Your task to perform on an android device: Go to internet settings Image 0: 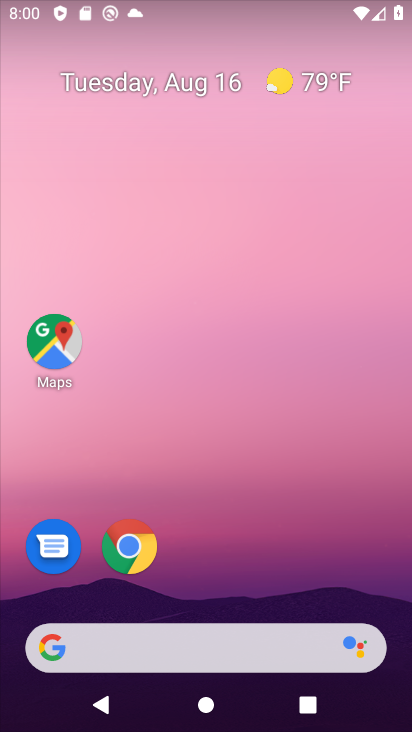
Step 0: drag from (201, 397) to (203, 146)
Your task to perform on an android device: Go to internet settings Image 1: 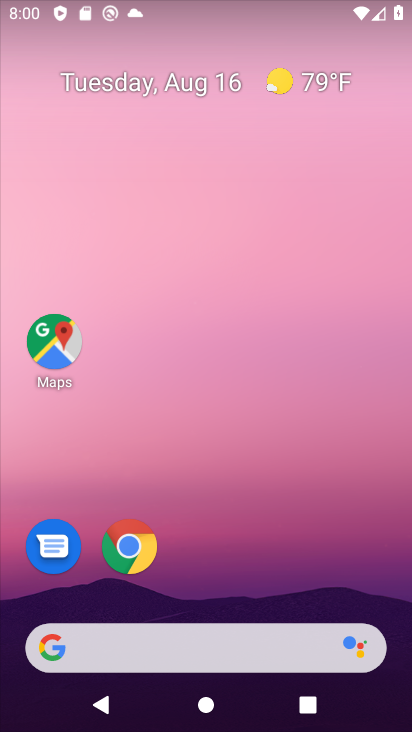
Step 1: drag from (196, 578) to (196, 17)
Your task to perform on an android device: Go to internet settings Image 2: 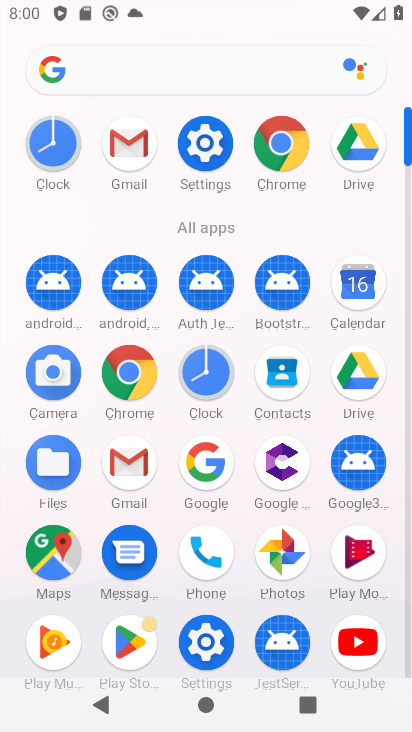
Step 2: click (196, 145)
Your task to perform on an android device: Go to internet settings Image 3: 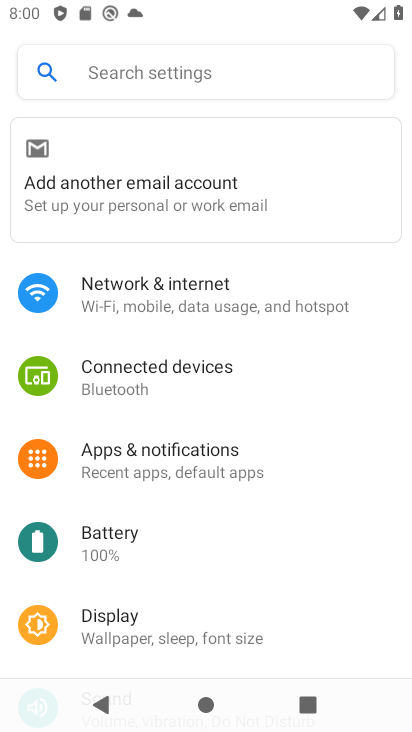
Step 3: click (128, 299)
Your task to perform on an android device: Go to internet settings Image 4: 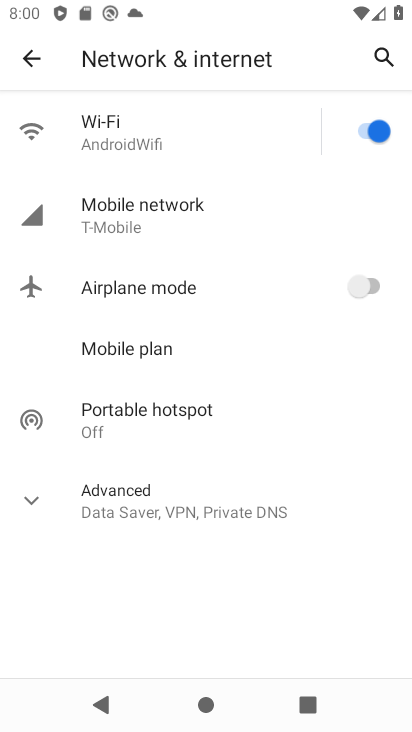
Step 4: task complete